Your task to perform on an android device: Open settings on Google Maps Image 0: 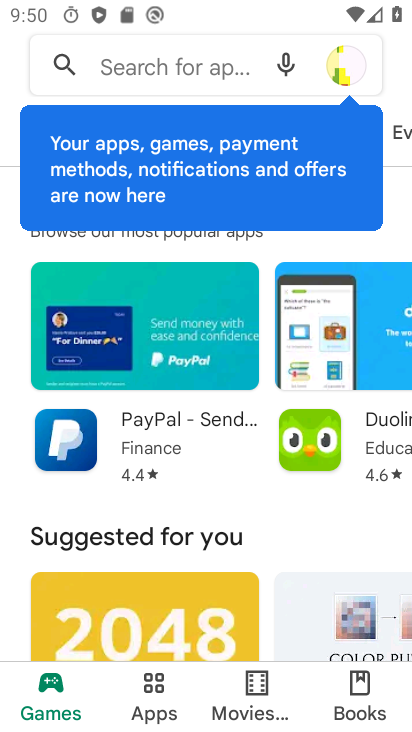
Step 0: press home button
Your task to perform on an android device: Open settings on Google Maps Image 1: 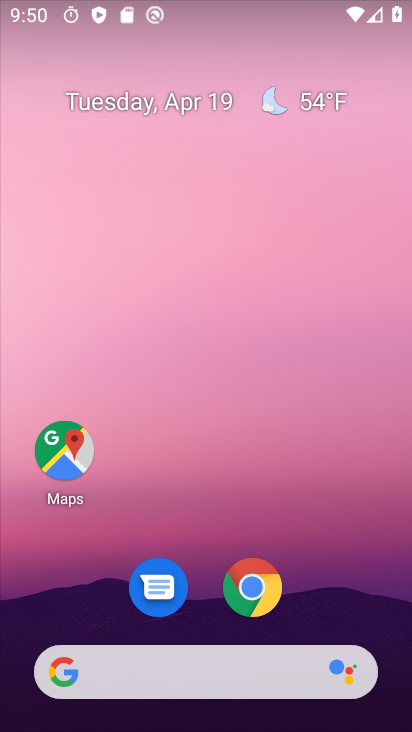
Step 1: click (68, 452)
Your task to perform on an android device: Open settings on Google Maps Image 2: 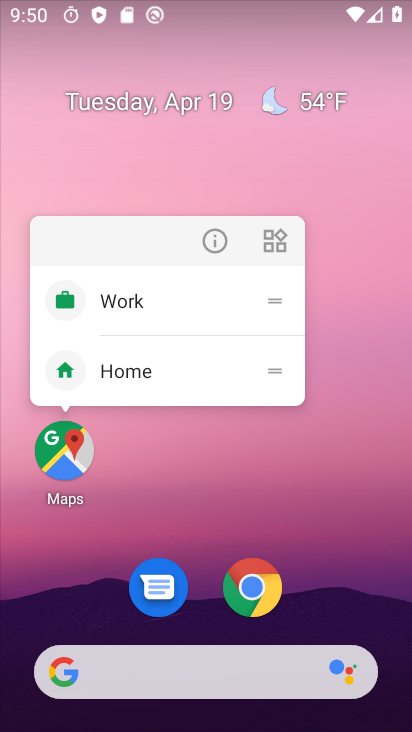
Step 2: click (299, 455)
Your task to perform on an android device: Open settings on Google Maps Image 3: 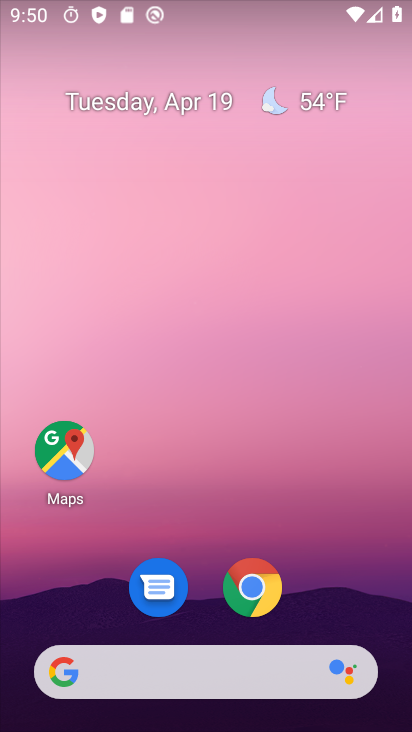
Step 3: drag from (327, 550) to (291, 77)
Your task to perform on an android device: Open settings on Google Maps Image 4: 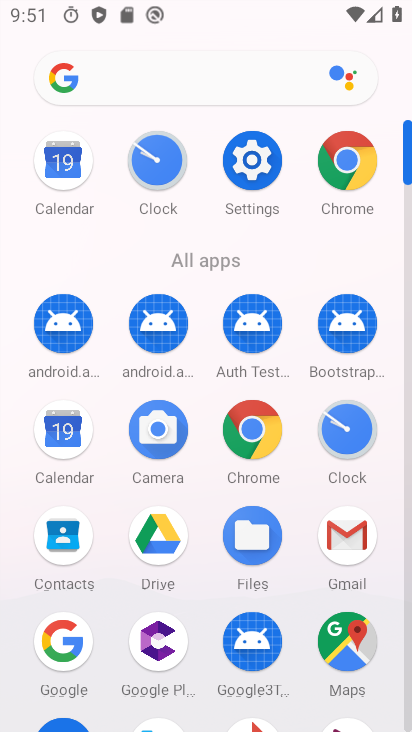
Step 4: click (349, 655)
Your task to perform on an android device: Open settings on Google Maps Image 5: 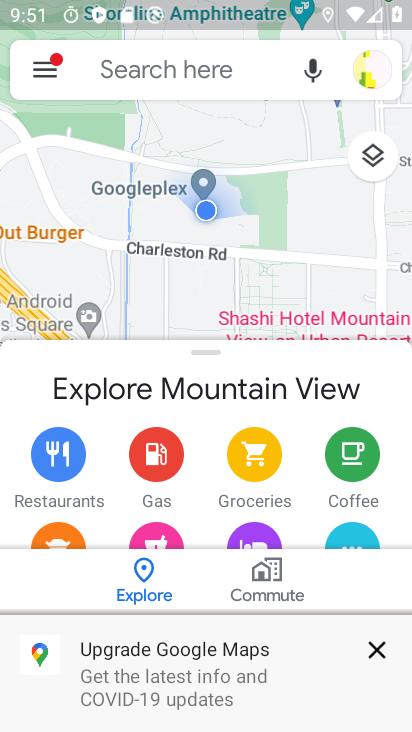
Step 5: task complete